Your task to perform on an android device: Open CNN.com Image 0: 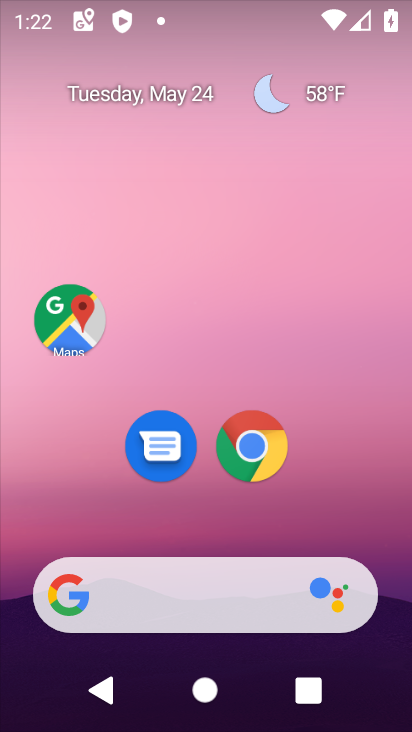
Step 0: drag from (257, 597) to (256, 107)
Your task to perform on an android device: Open CNN.com Image 1: 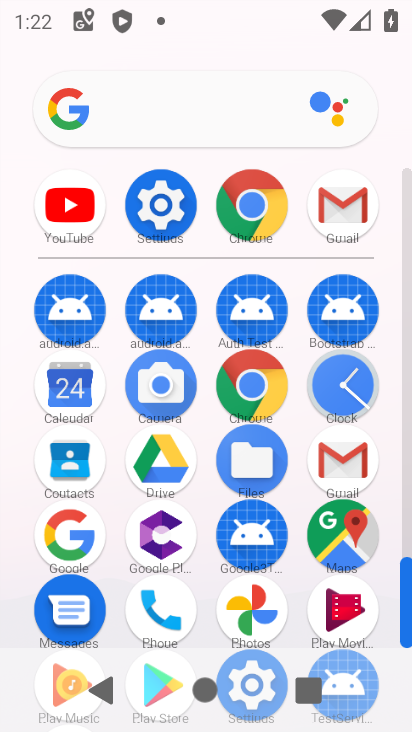
Step 1: click (263, 234)
Your task to perform on an android device: Open CNN.com Image 2: 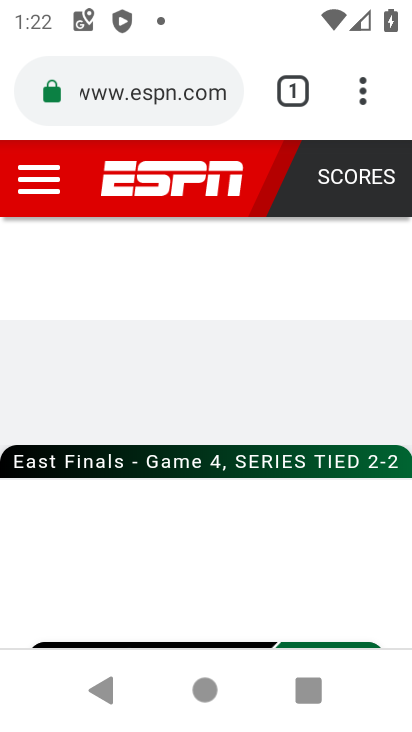
Step 2: click (207, 102)
Your task to perform on an android device: Open CNN.com Image 3: 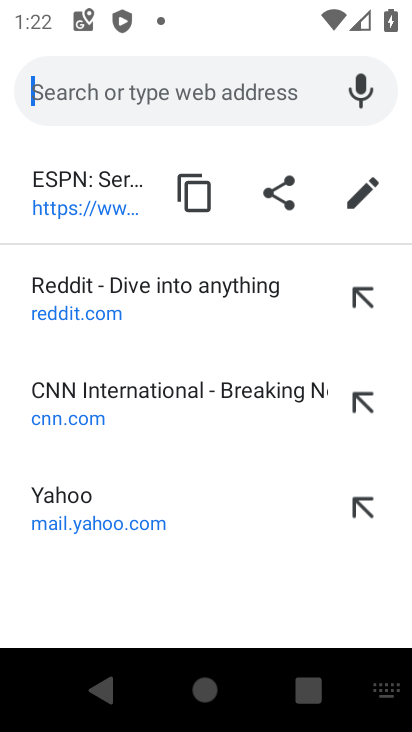
Step 3: type "cnn"
Your task to perform on an android device: Open CNN.com Image 4: 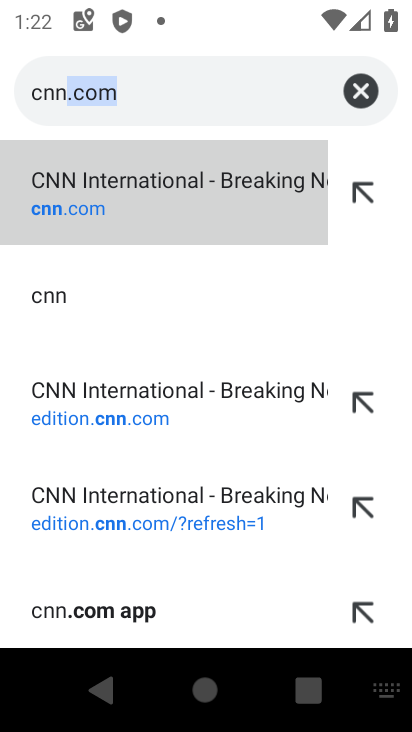
Step 4: click (227, 190)
Your task to perform on an android device: Open CNN.com Image 5: 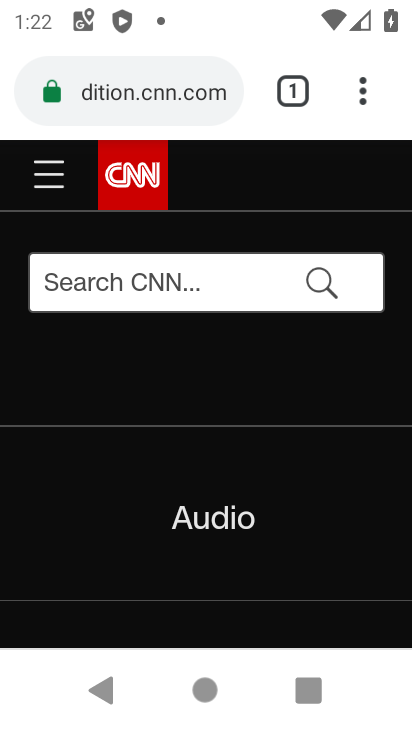
Step 5: task complete